Your task to perform on an android device: Open Google Maps Image 0: 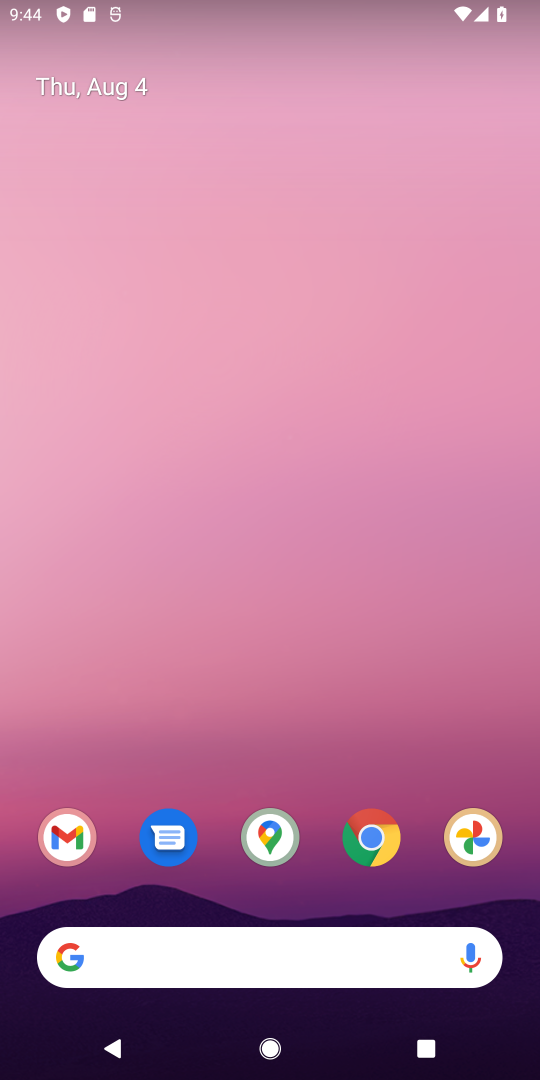
Step 0: drag from (411, 769) to (77, 11)
Your task to perform on an android device: Open Google Maps Image 1: 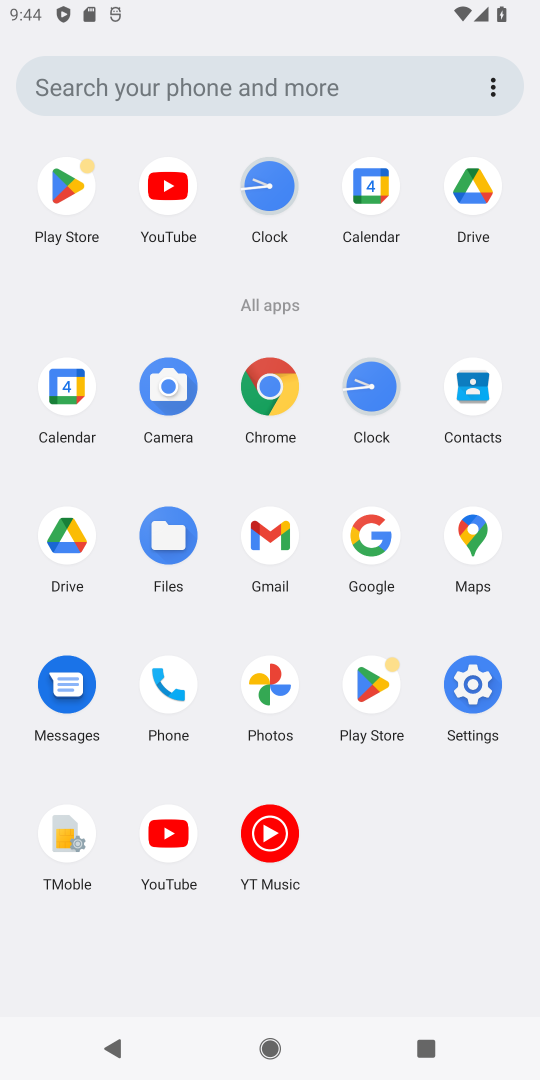
Step 1: click (469, 527)
Your task to perform on an android device: Open Google Maps Image 2: 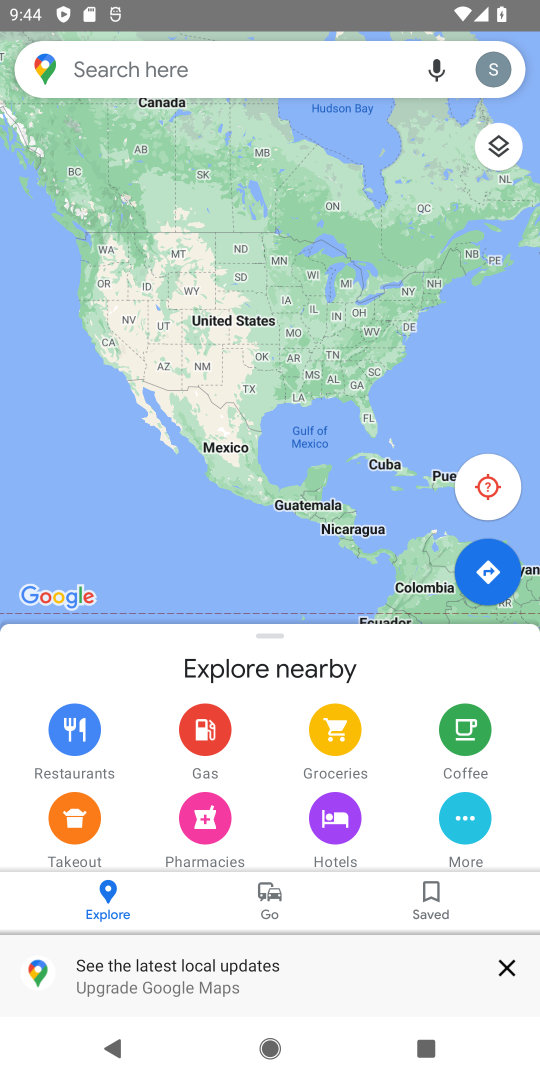
Step 2: task complete